Your task to perform on an android device: open app "TextNow: Call + Text Unlimited" (install if not already installed) Image 0: 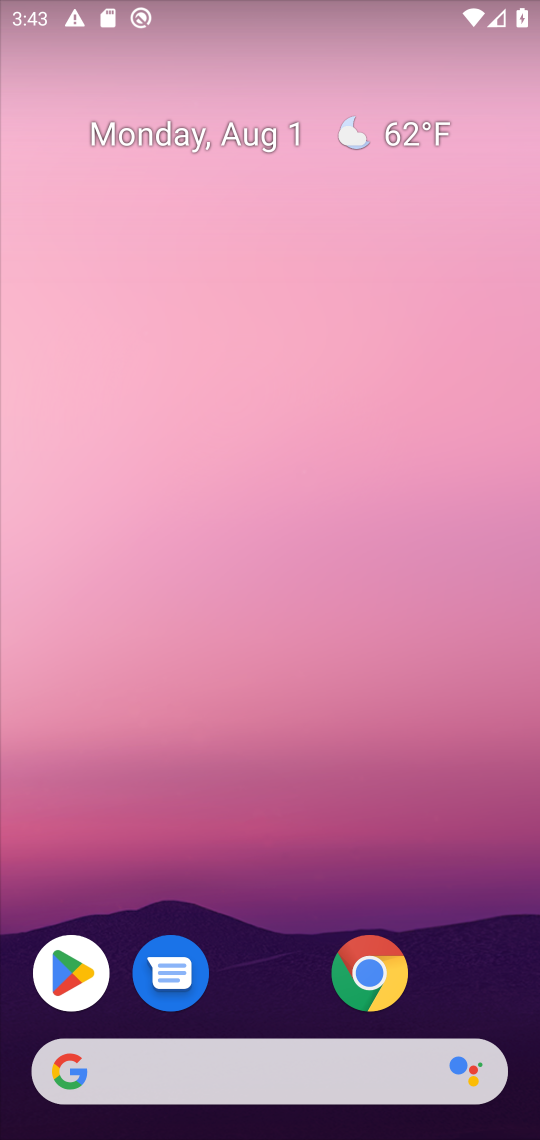
Step 0: drag from (359, 982) to (483, 477)
Your task to perform on an android device: open app "TextNow: Call + Text Unlimited" (install if not already installed) Image 1: 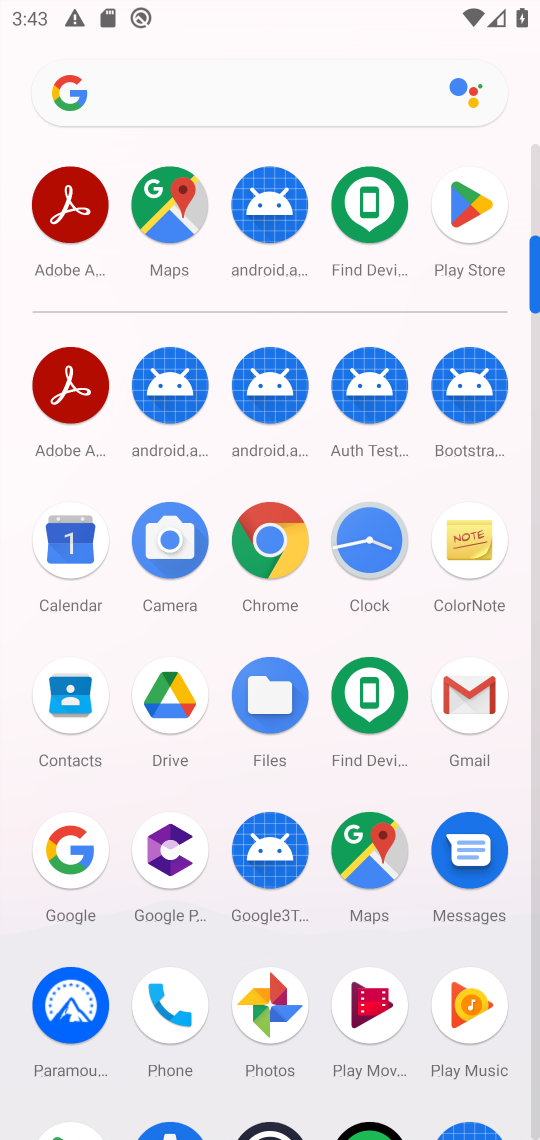
Step 1: click (463, 197)
Your task to perform on an android device: open app "TextNow: Call + Text Unlimited" (install if not already installed) Image 2: 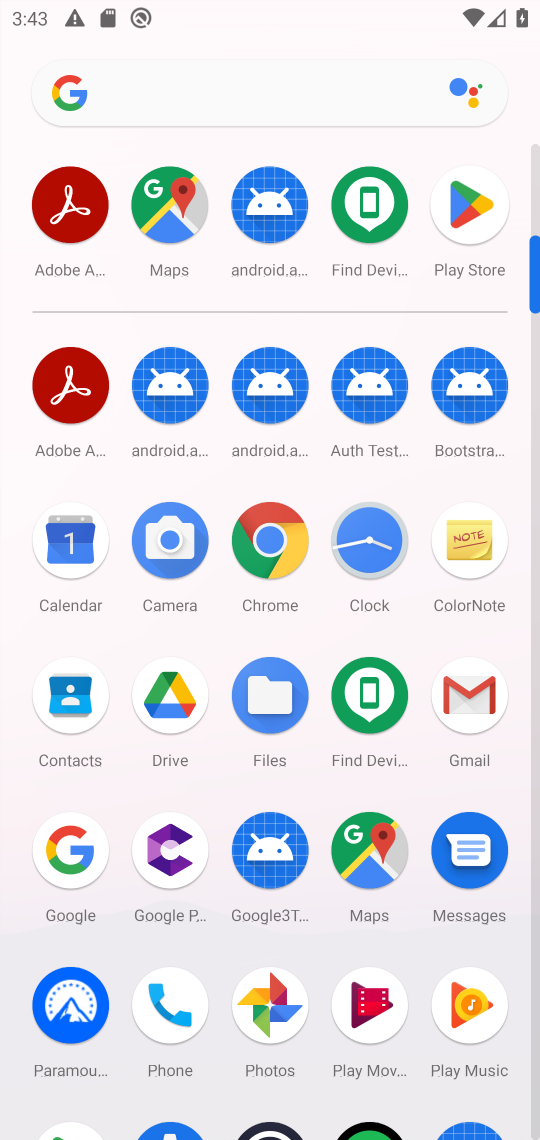
Step 2: click (463, 197)
Your task to perform on an android device: open app "TextNow: Call + Text Unlimited" (install if not already installed) Image 3: 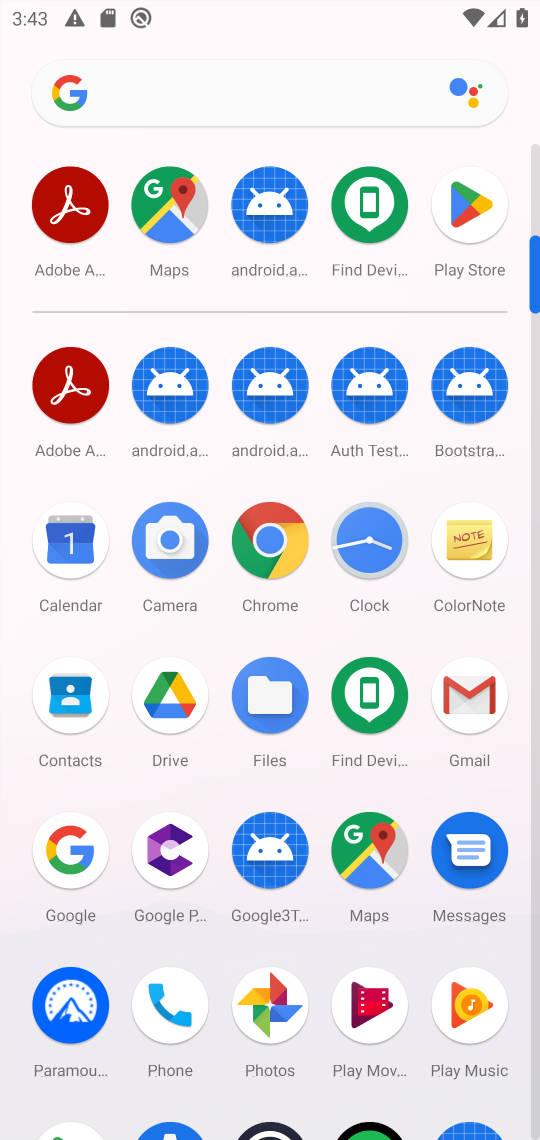
Step 3: click (464, 198)
Your task to perform on an android device: open app "TextNow: Call + Text Unlimited" (install if not already installed) Image 4: 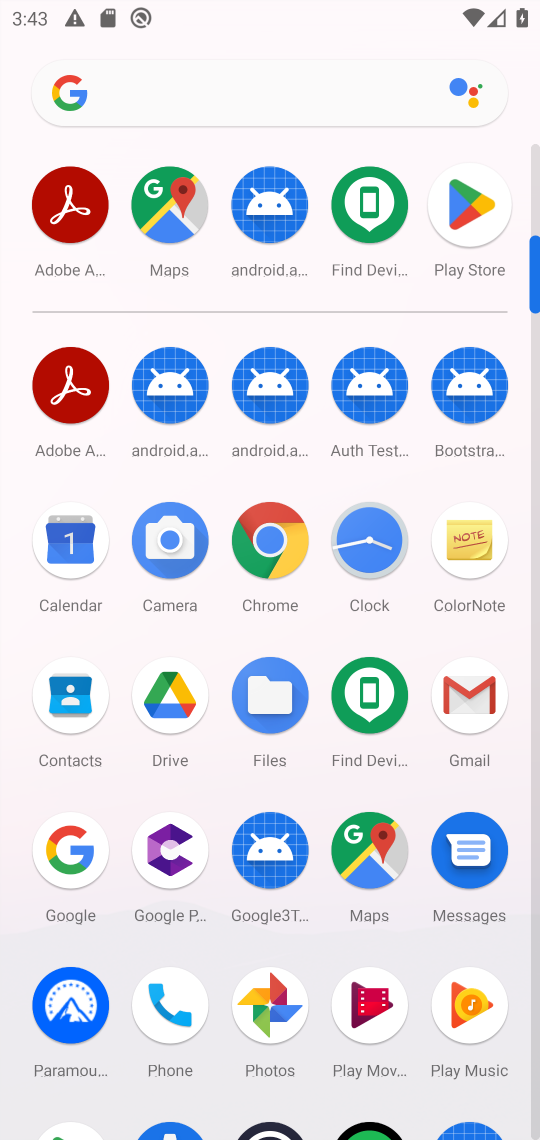
Step 4: click (466, 210)
Your task to perform on an android device: open app "TextNow: Call + Text Unlimited" (install if not already installed) Image 5: 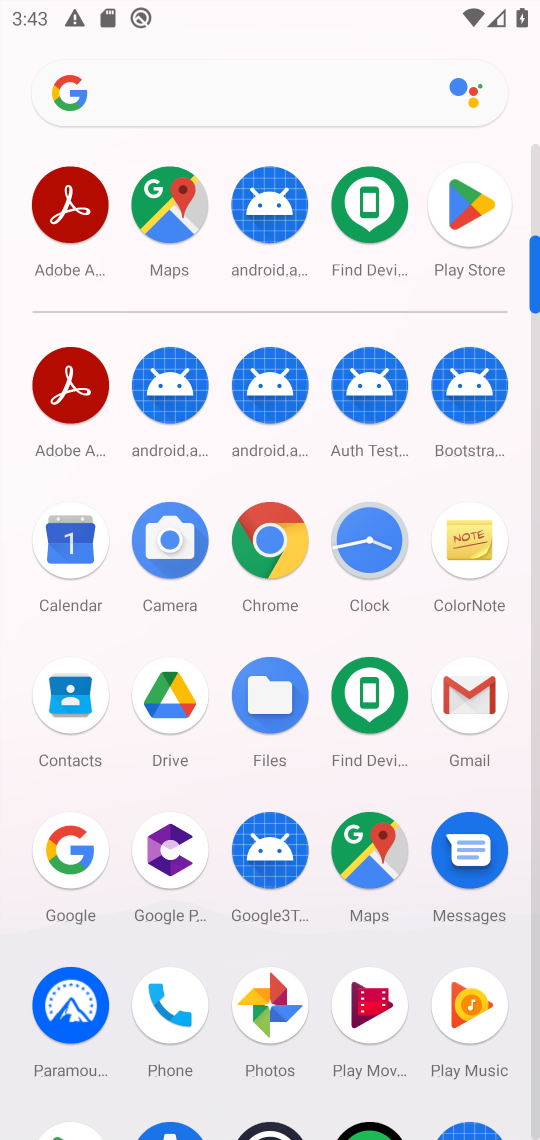
Step 5: click (470, 210)
Your task to perform on an android device: open app "TextNow: Call + Text Unlimited" (install if not already installed) Image 6: 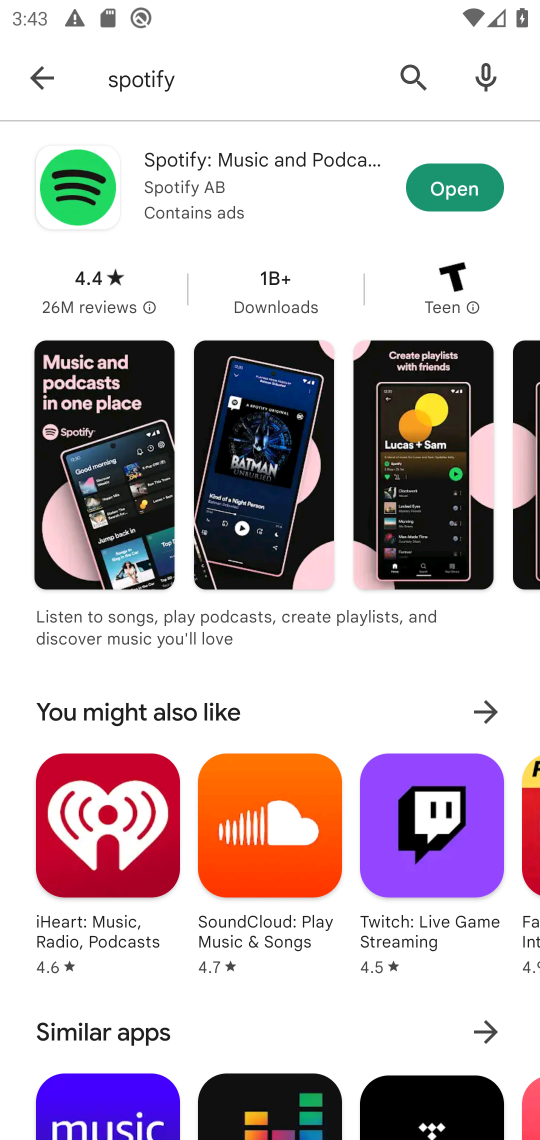
Step 6: click (477, 215)
Your task to perform on an android device: open app "TextNow: Call + Text Unlimited" (install if not already installed) Image 7: 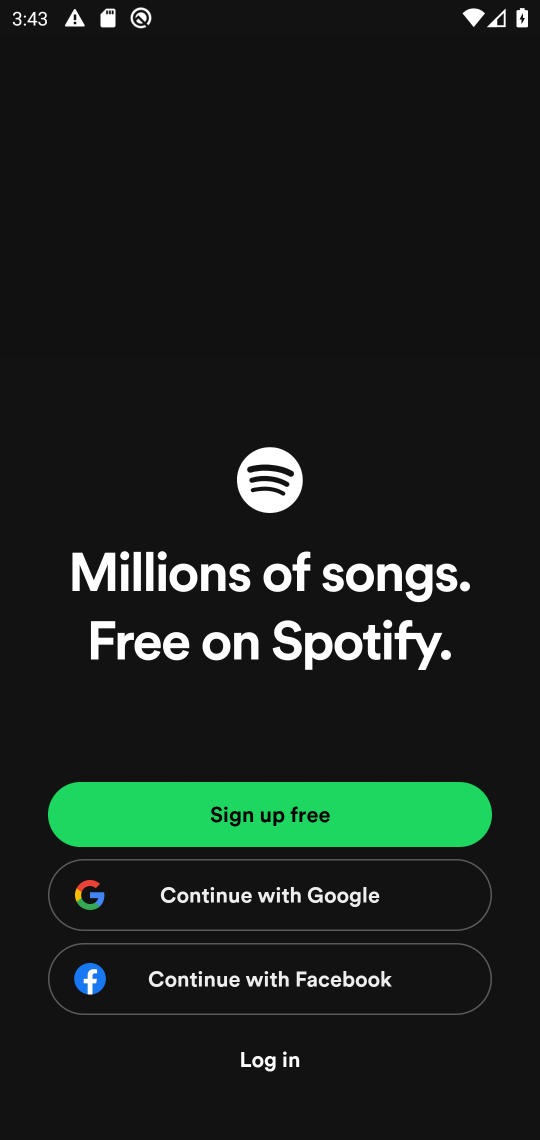
Step 7: press back button
Your task to perform on an android device: open app "TextNow: Call + Text Unlimited" (install if not already installed) Image 8: 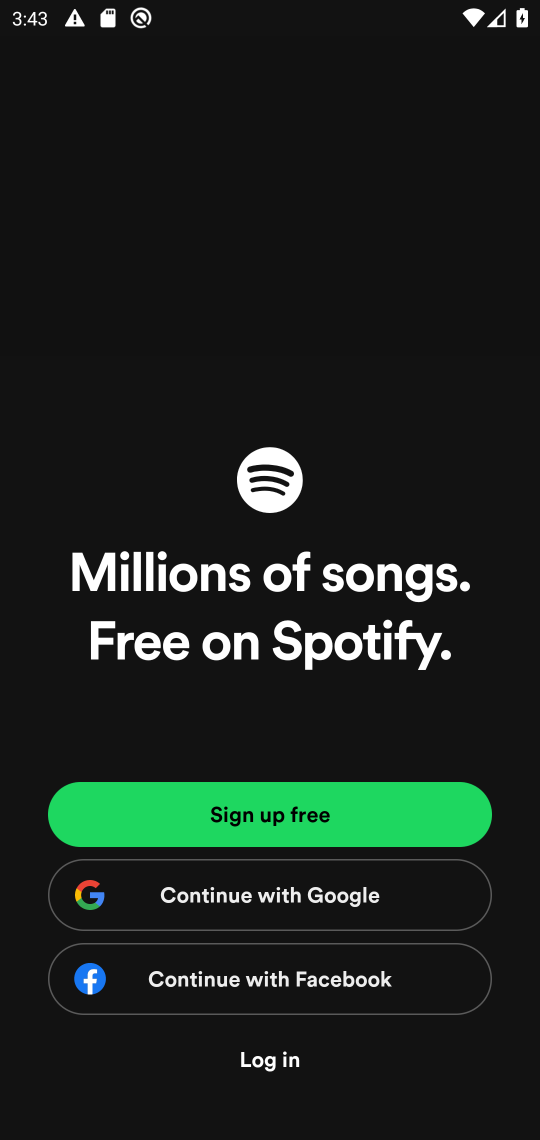
Step 8: press back button
Your task to perform on an android device: open app "TextNow: Call + Text Unlimited" (install if not already installed) Image 9: 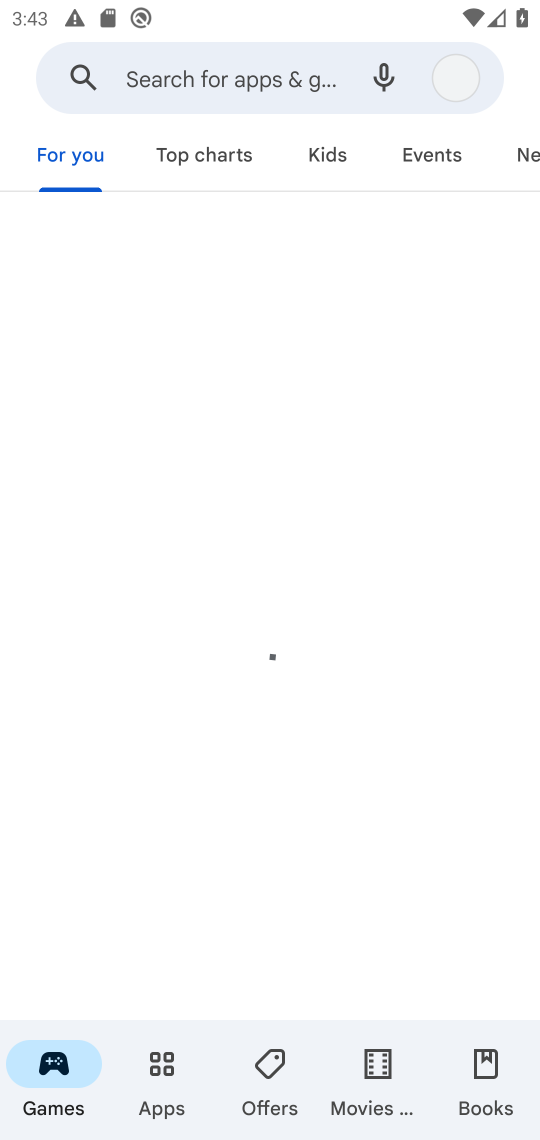
Step 9: press back button
Your task to perform on an android device: open app "TextNow: Call + Text Unlimited" (install if not already installed) Image 10: 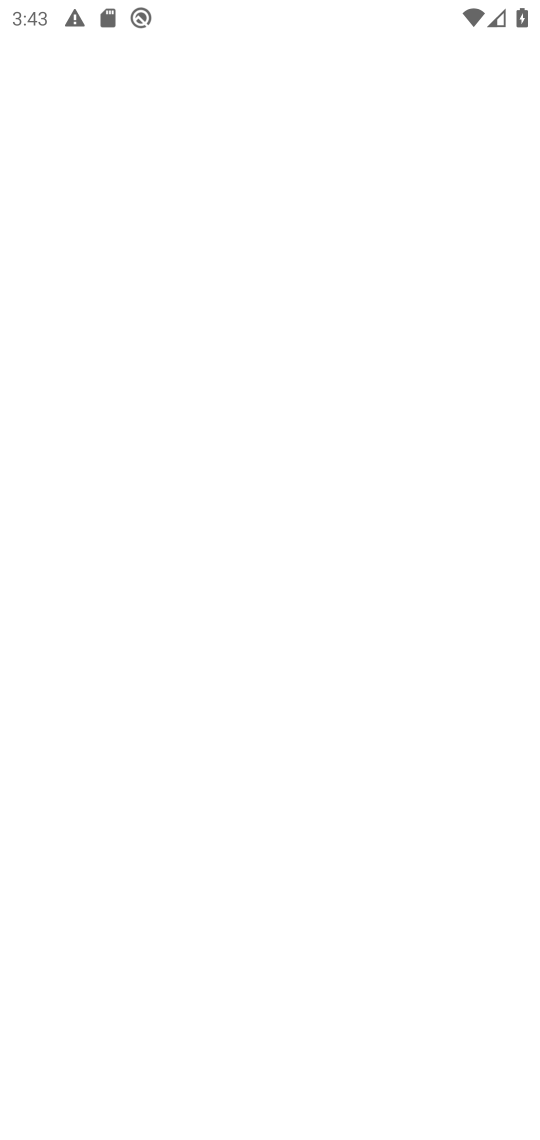
Step 10: click (186, 76)
Your task to perform on an android device: open app "TextNow: Call + Text Unlimited" (install if not already installed) Image 11: 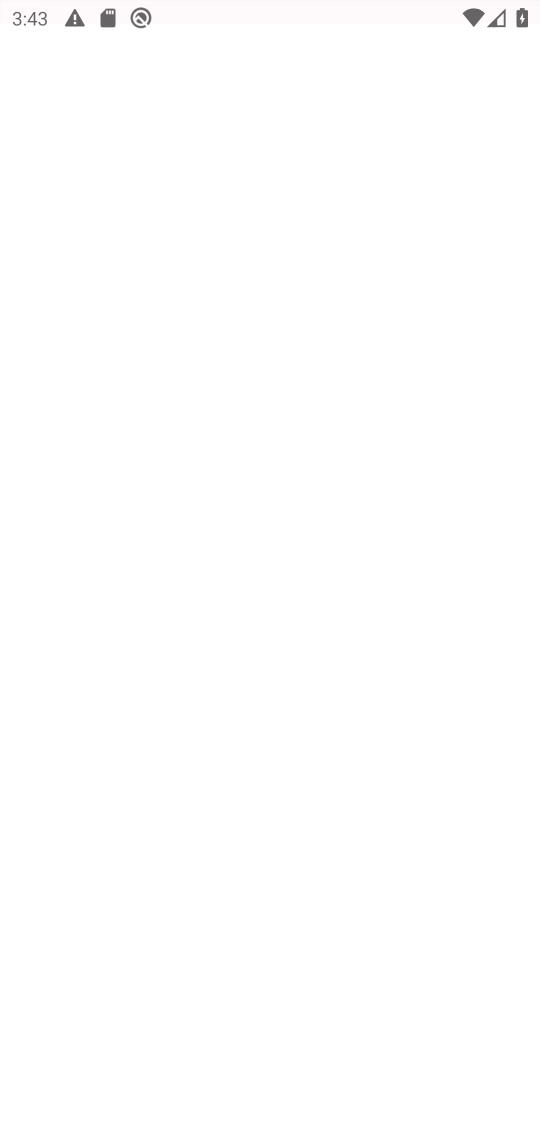
Step 11: click (180, 78)
Your task to perform on an android device: open app "TextNow: Call + Text Unlimited" (install if not already installed) Image 12: 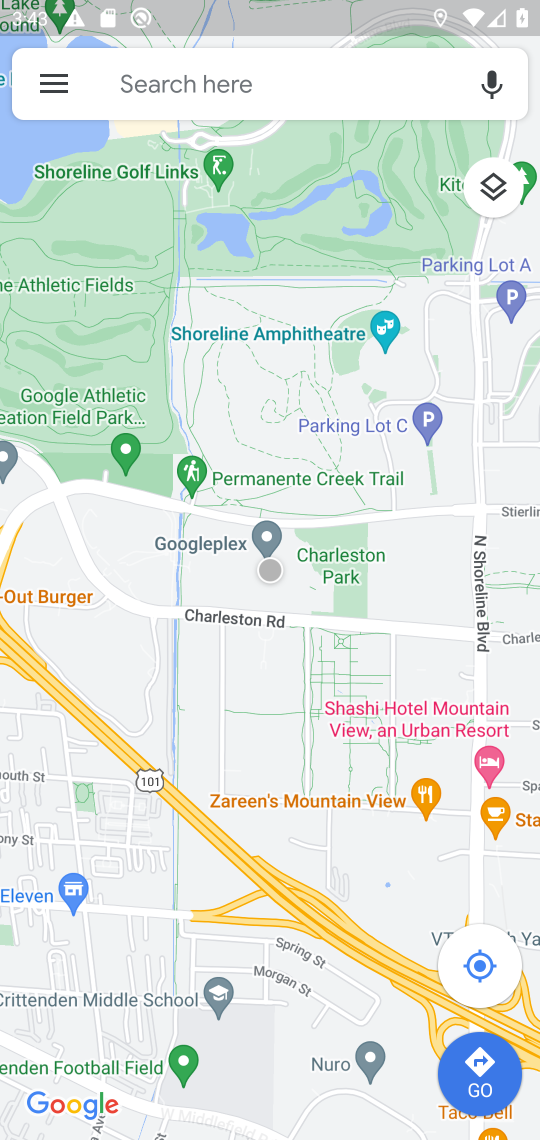
Step 12: press home button
Your task to perform on an android device: open app "TextNow: Call + Text Unlimited" (install if not already installed) Image 13: 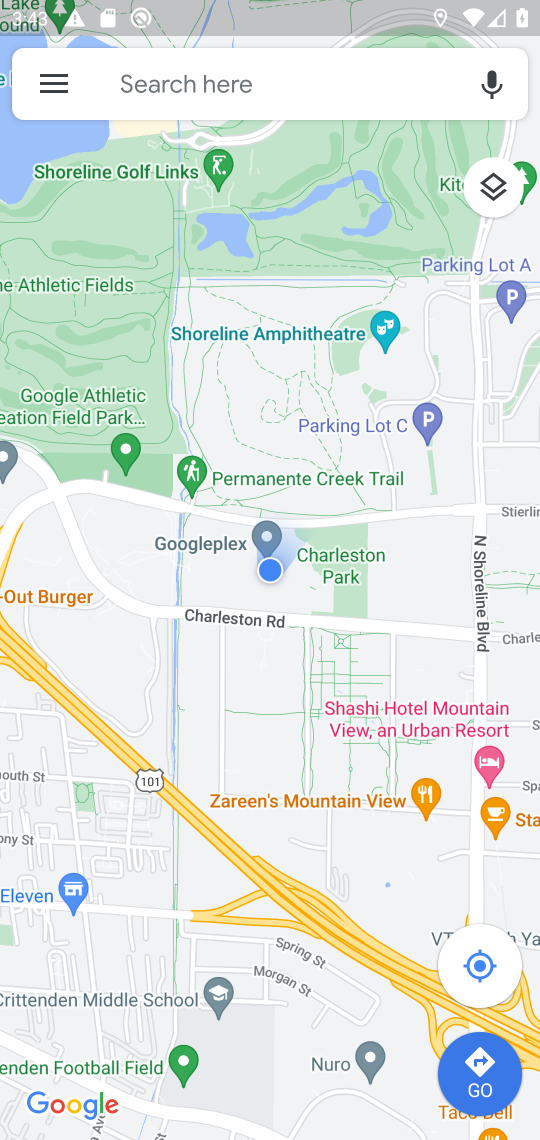
Step 13: press home button
Your task to perform on an android device: open app "TextNow: Call + Text Unlimited" (install if not already installed) Image 14: 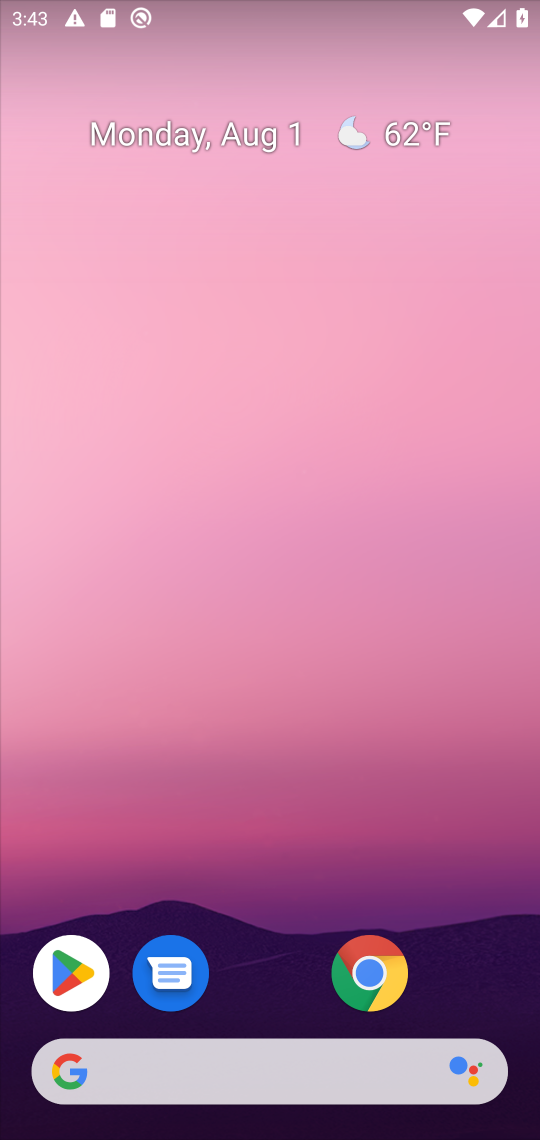
Step 14: press home button
Your task to perform on an android device: open app "TextNow: Call + Text Unlimited" (install if not already installed) Image 15: 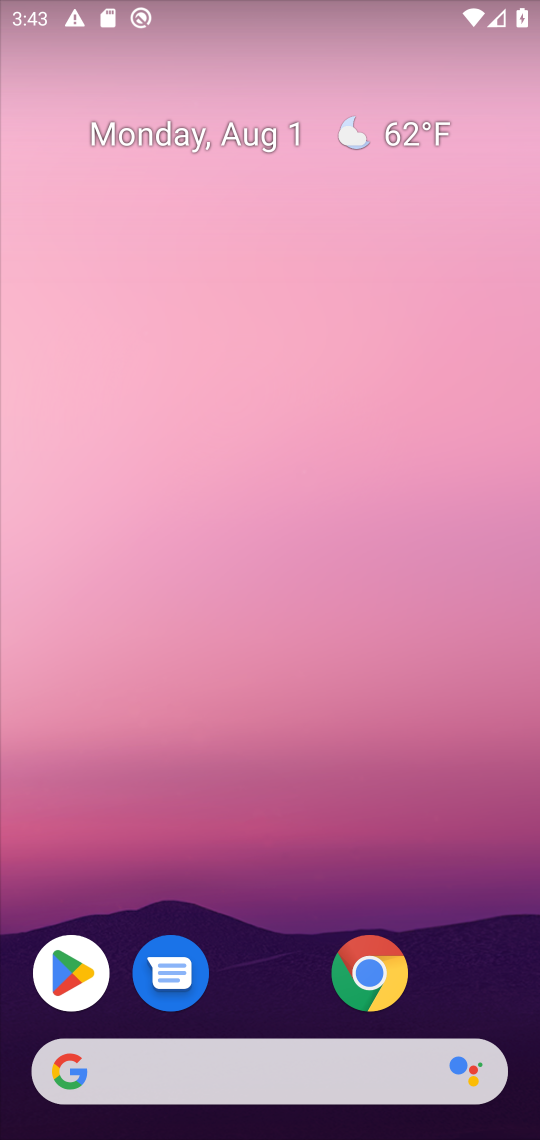
Step 15: drag from (338, 902) to (322, 245)
Your task to perform on an android device: open app "TextNow: Call + Text Unlimited" (install if not already installed) Image 16: 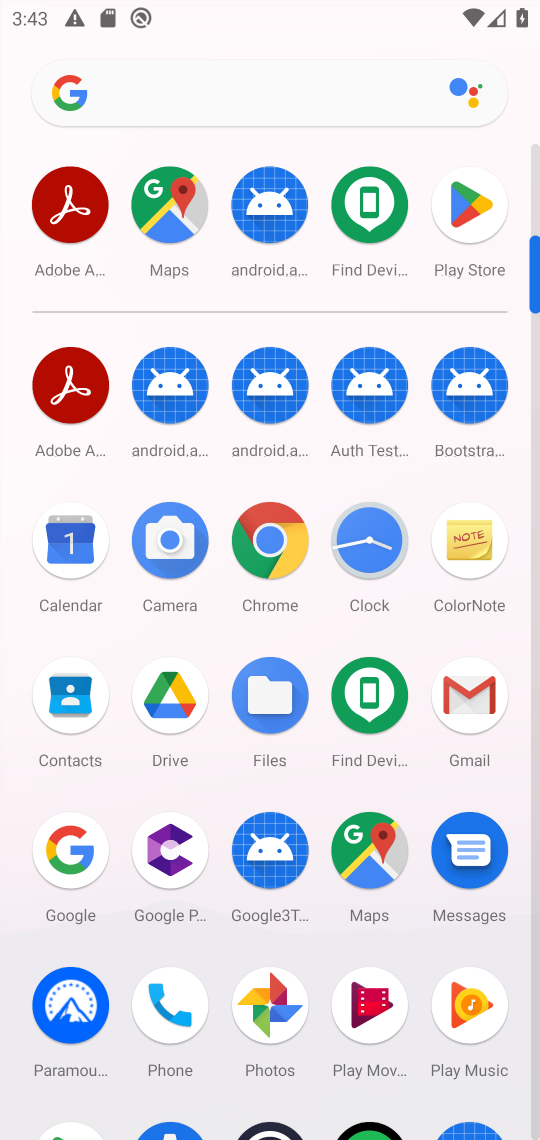
Step 16: click (458, 200)
Your task to perform on an android device: open app "TextNow: Call + Text Unlimited" (install if not already installed) Image 17: 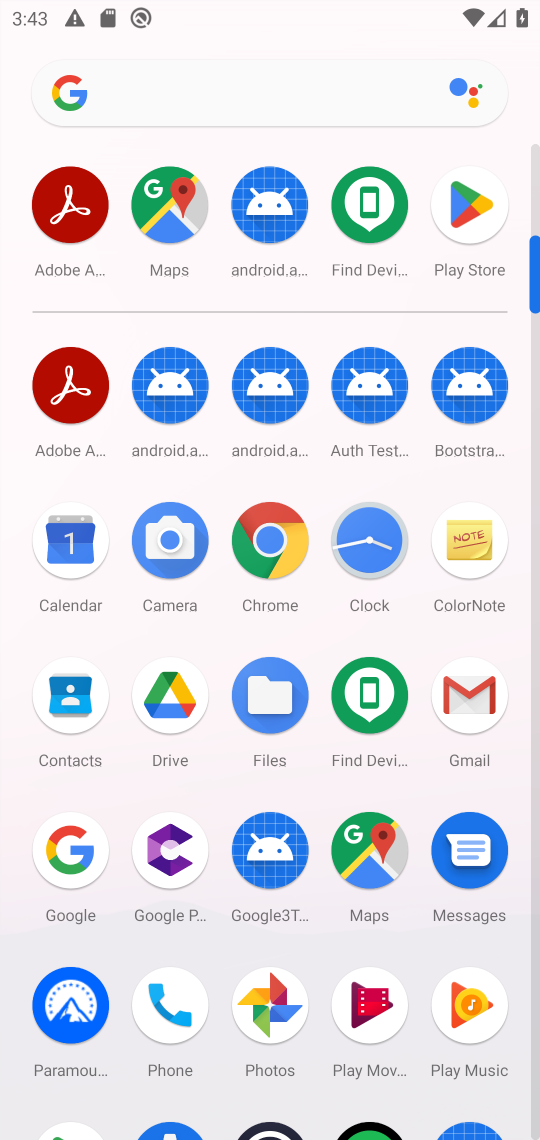
Step 17: click (459, 200)
Your task to perform on an android device: open app "TextNow: Call + Text Unlimited" (install if not already installed) Image 18: 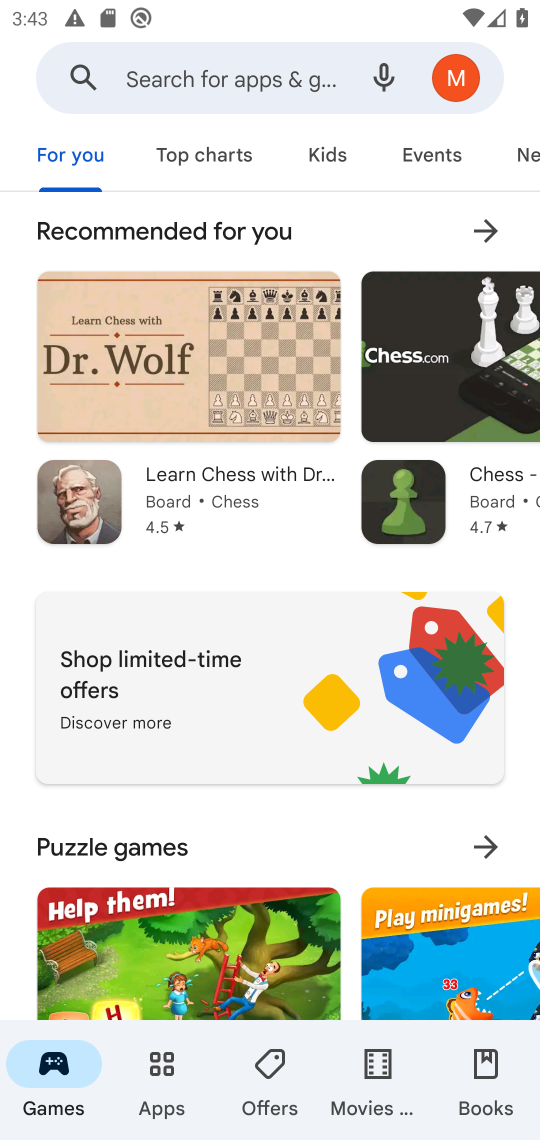
Step 18: click (186, 39)
Your task to perform on an android device: open app "TextNow: Call + Text Unlimited" (install if not already installed) Image 19: 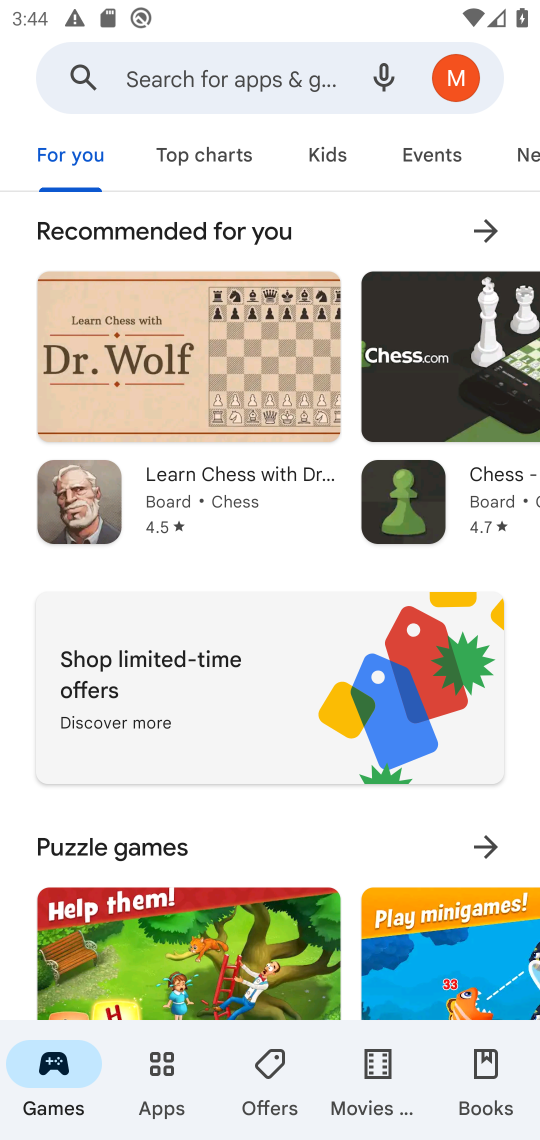
Step 19: type "texnow"
Your task to perform on an android device: open app "TextNow: Call + Text Unlimited" (install if not already installed) Image 20: 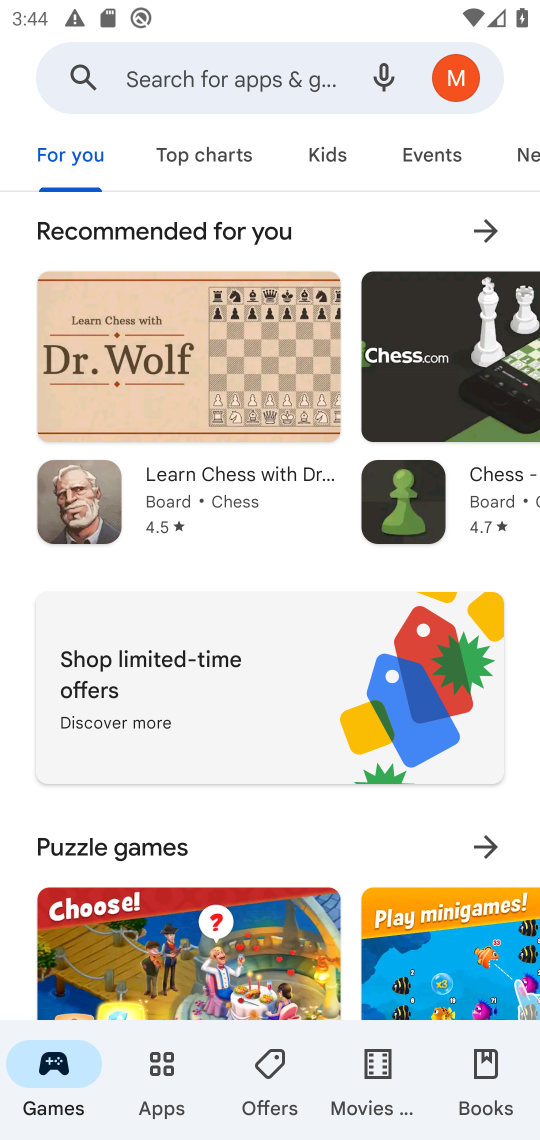
Step 20: click (174, 63)
Your task to perform on an android device: open app "TextNow: Call + Text Unlimited" (install if not already installed) Image 21: 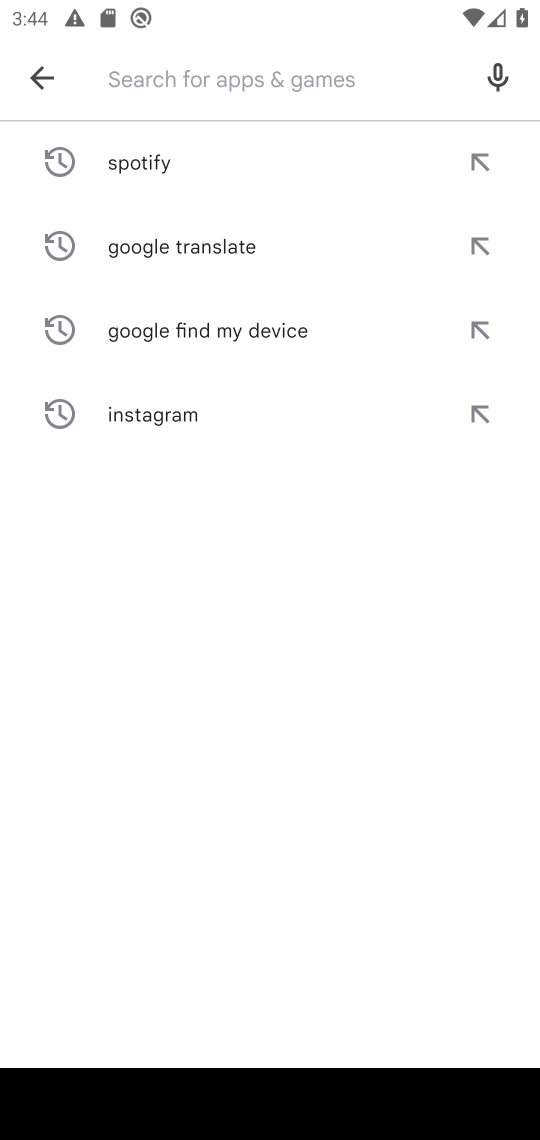
Step 21: type "texnow"
Your task to perform on an android device: open app "TextNow: Call + Text Unlimited" (install if not already installed) Image 22: 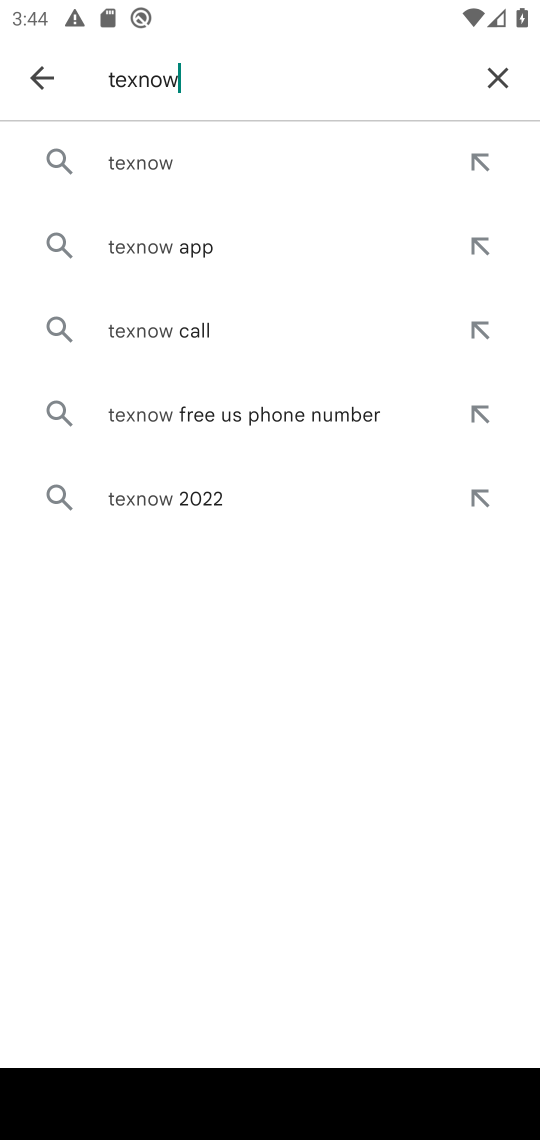
Step 22: click (143, 155)
Your task to perform on an android device: open app "TextNow: Call + Text Unlimited" (install if not already installed) Image 23: 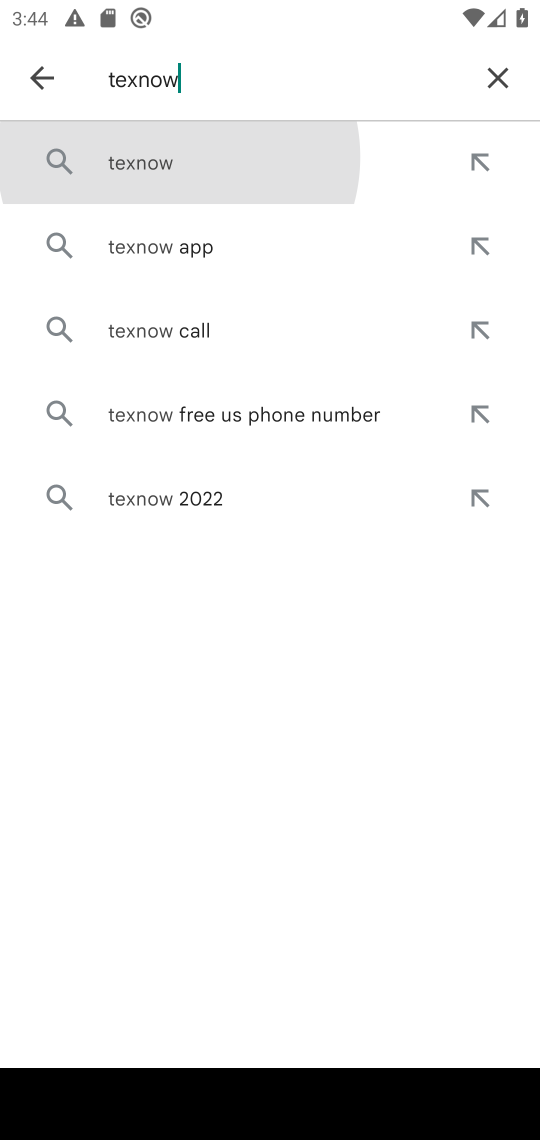
Step 23: click (143, 155)
Your task to perform on an android device: open app "TextNow: Call + Text Unlimited" (install if not already installed) Image 24: 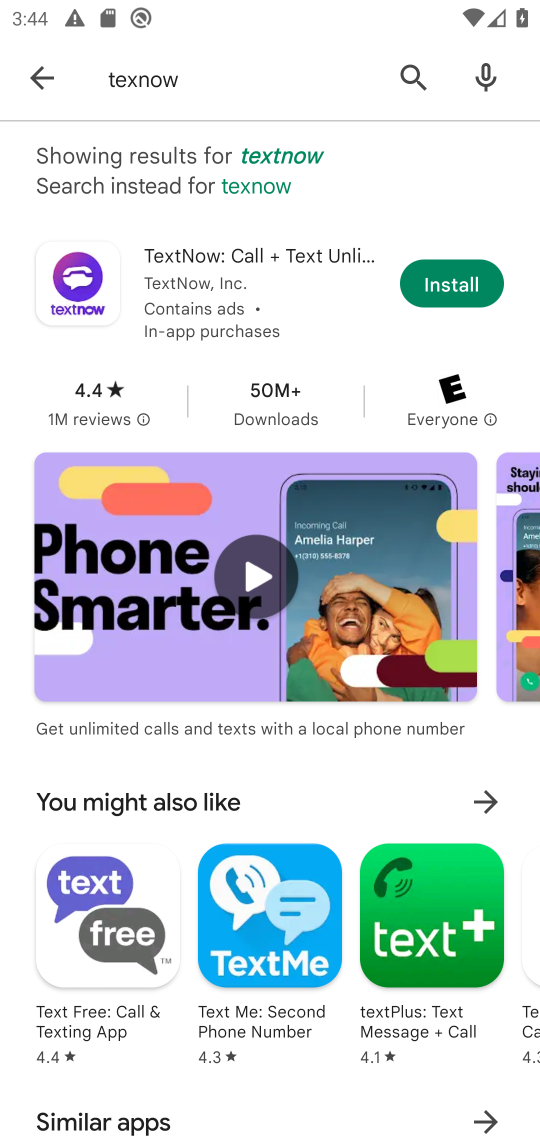
Step 24: click (475, 280)
Your task to perform on an android device: open app "TextNow: Call + Text Unlimited" (install if not already installed) Image 25: 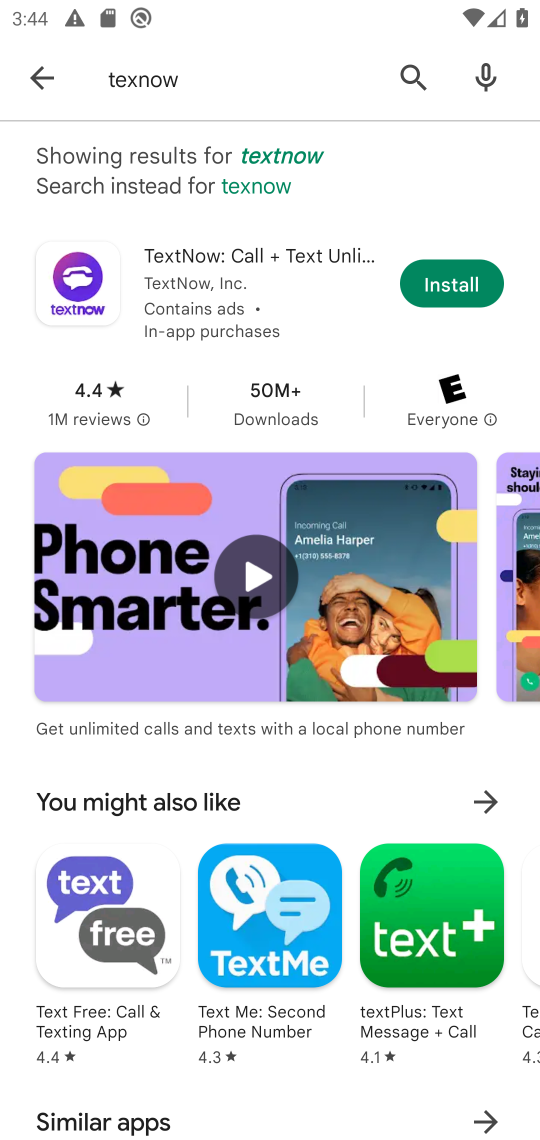
Step 25: click (474, 279)
Your task to perform on an android device: open app "TextNow: Call + Text Unlimited" (install if not already installed) Image 26: 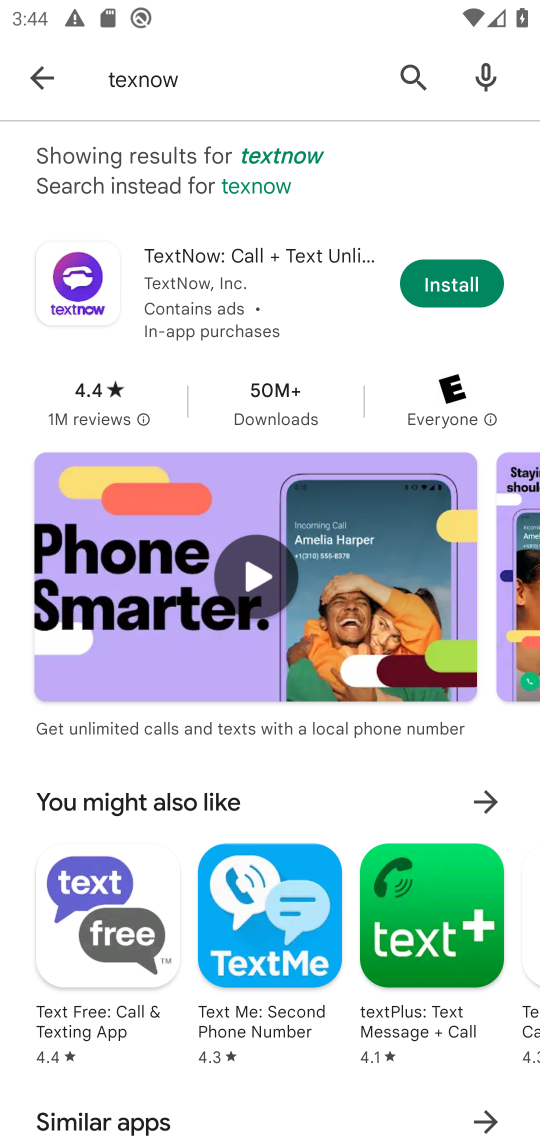
Step 26: click (465, 276)
Your task to perform on an android device: open app "TextNow: Call + Text Unlimited" (install if not already installed) Image 27: 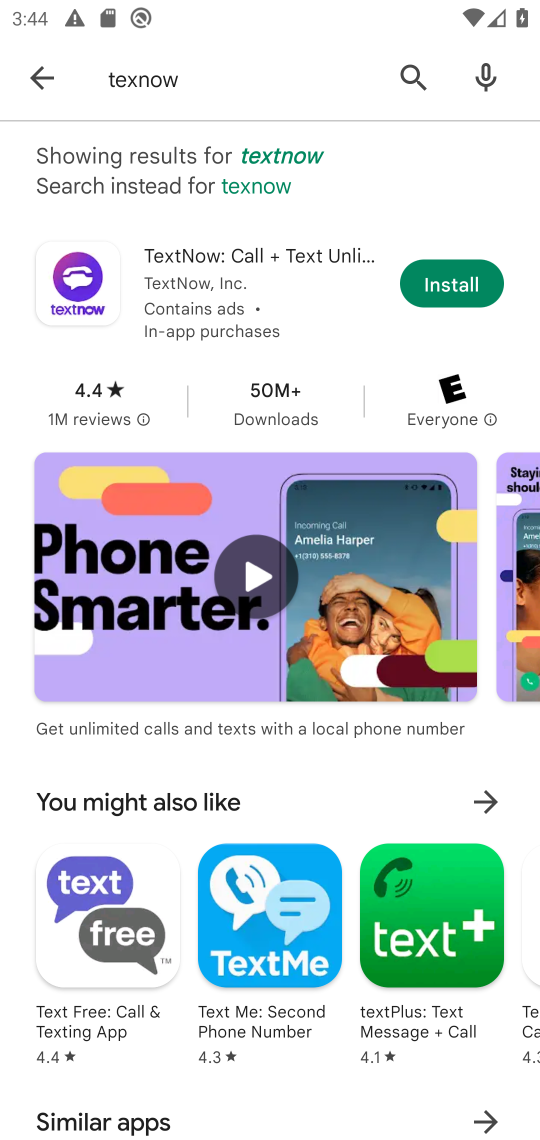
Step 27: click (465, 276)
Your task to perform on an android device: open app "TextNow: Call + Text Unlimited" (install if not already installed) Image 28: 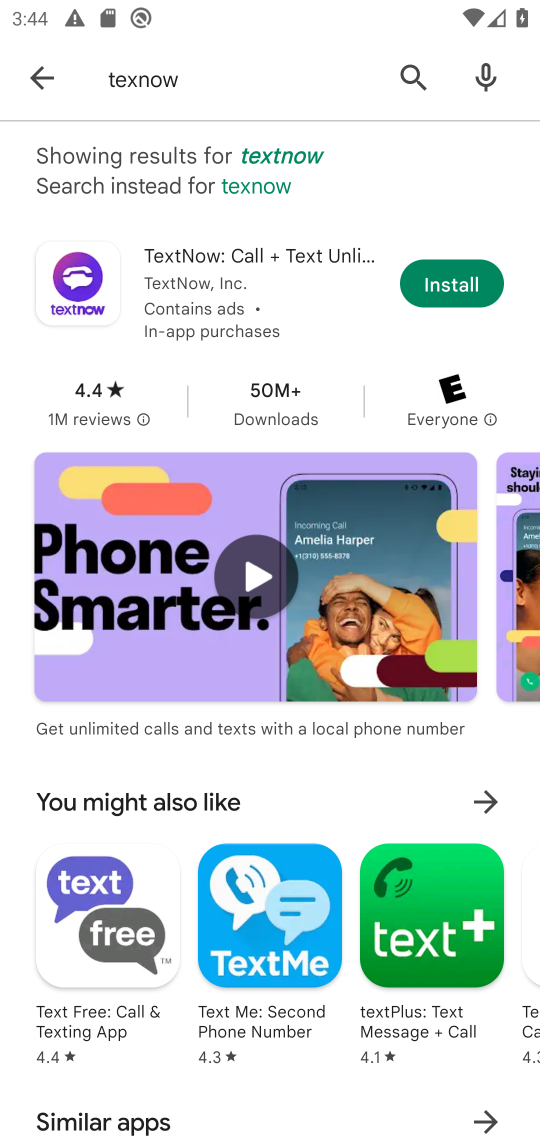
Step 28: click (465, 288)
Your task to perform on an android device: open app "TextNow: Call + Text Unlimited" (install if not already installed) Image 29: 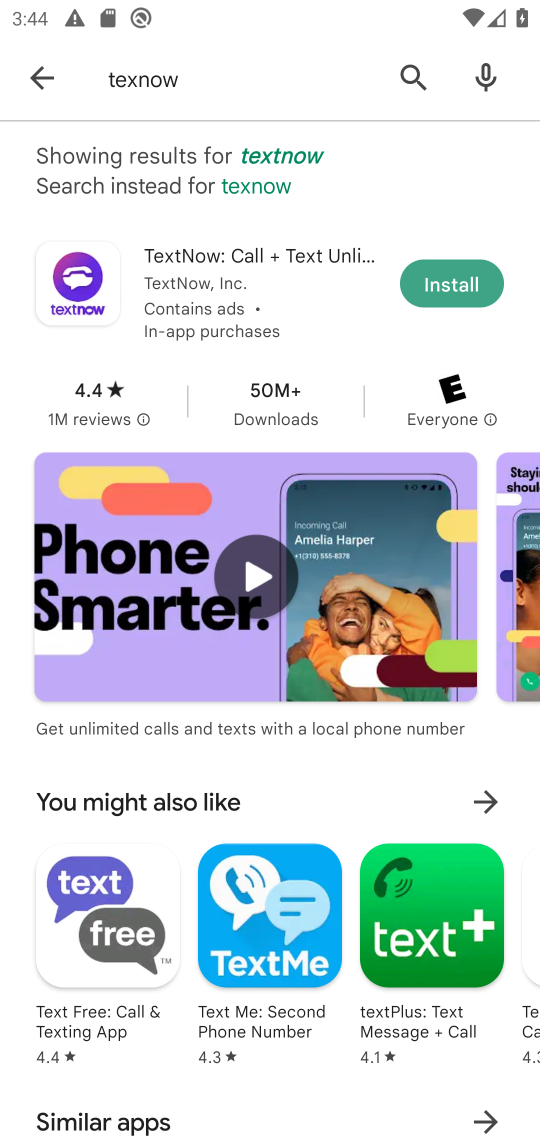
Step 29: click (470, 290)
Your task to perform on an android device: open app "TextNow: Call + Text Unlimited" (install if not already installed) Image 30: 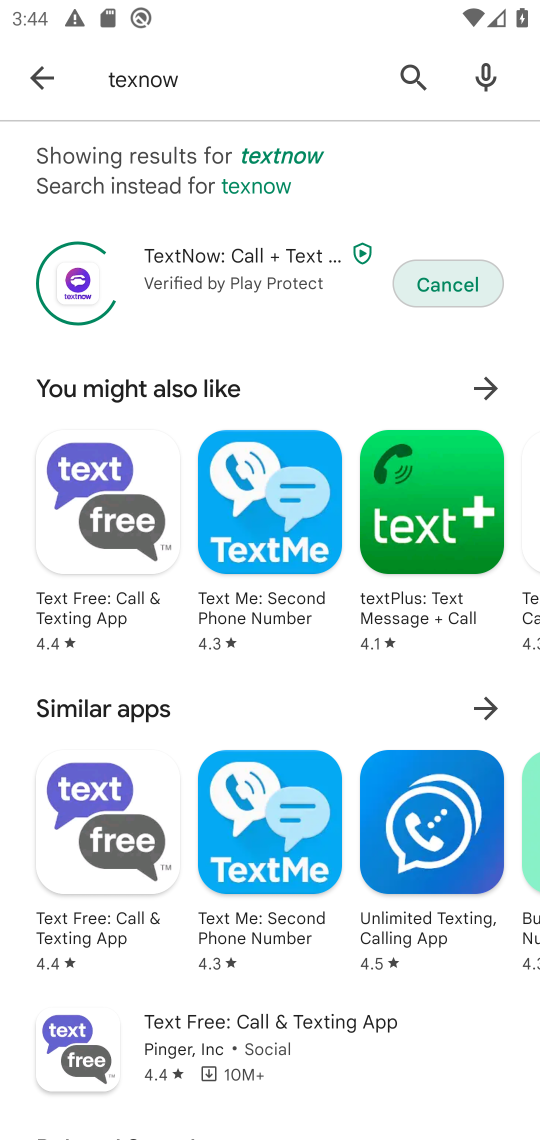
Step 30: click (475, 295)
Your task to perform on an android device: open app "TextNow: Call + Text Unlimited" (install if not already installed) Image 31: 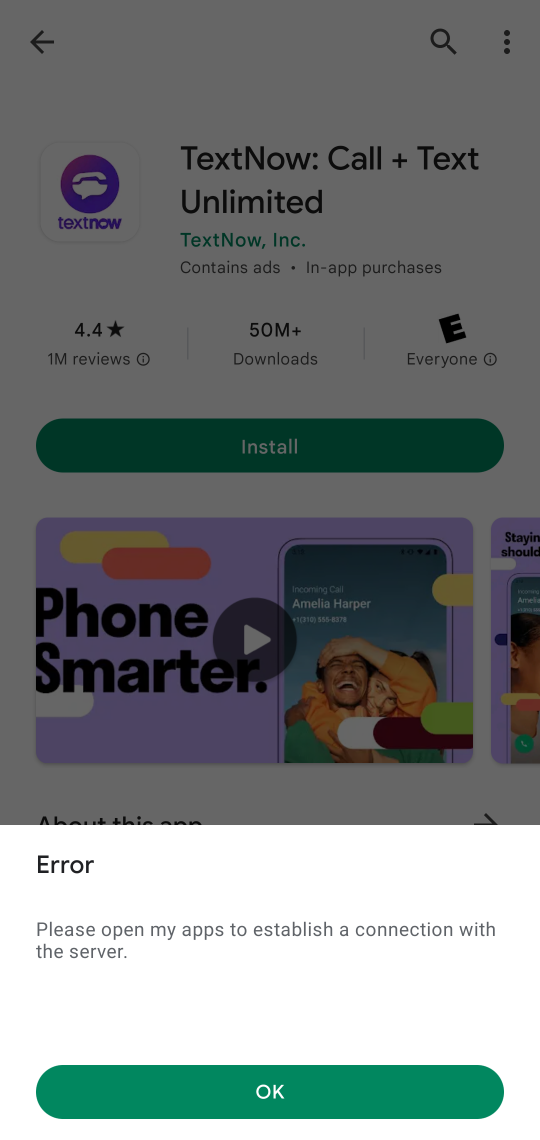
Step 31: click (282, 1085)
Your task to perform on an android device: open app "TextNow: Call + Text Unlimited" (install if not already installed) Image 32: 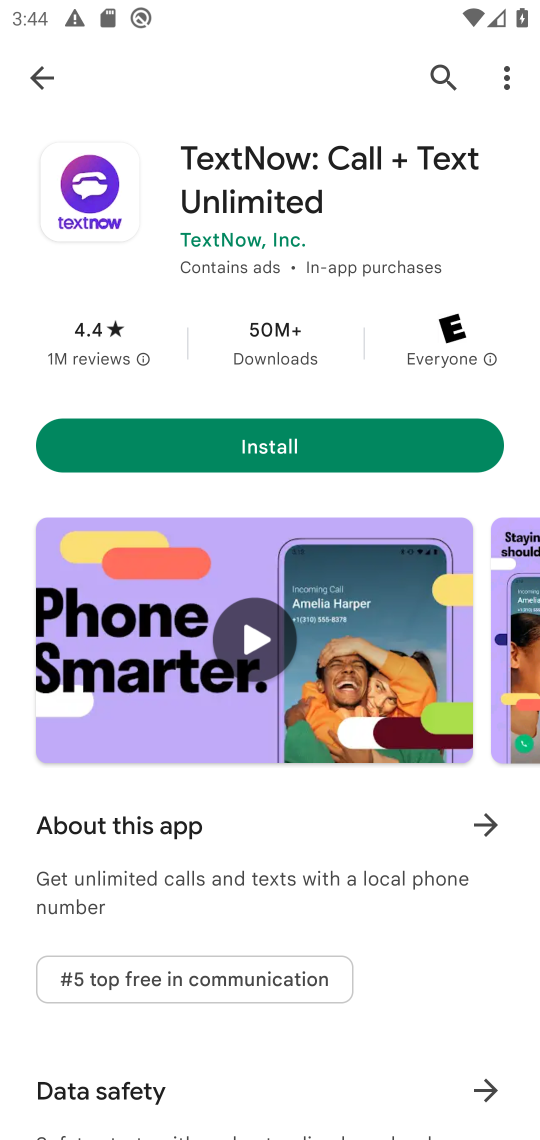
Step 32: click (280, 440)
Your task to perform on an android device: open app "TextNow: Call + Text Unlimited" (install if not already installed) Image 33: 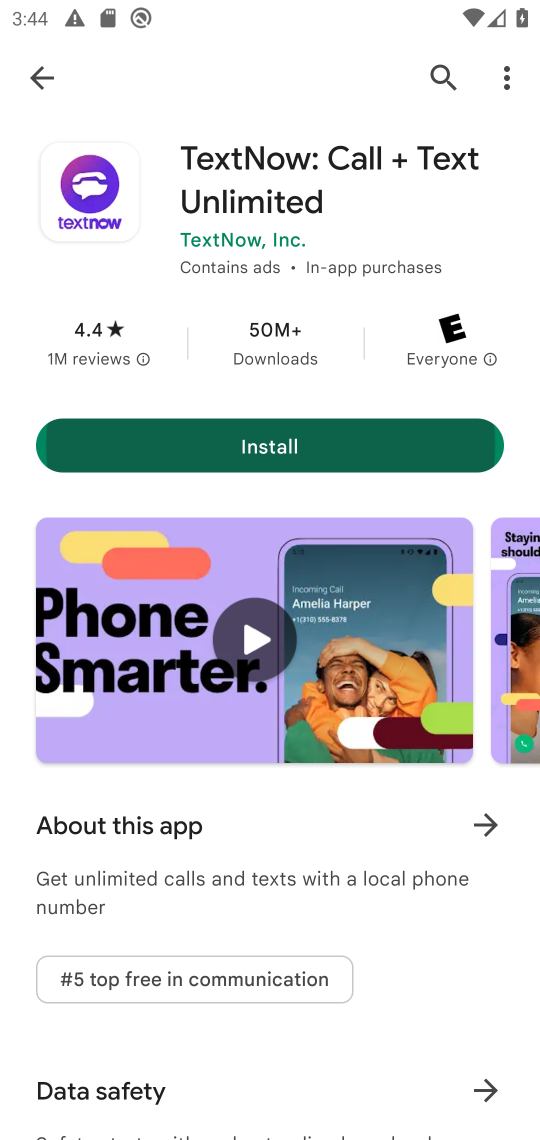
Step 33: click (280, 440)
Your task to perform on an android device: open app "TextNow: Call + Text Unlimited" (install if not already installed) Image 34: 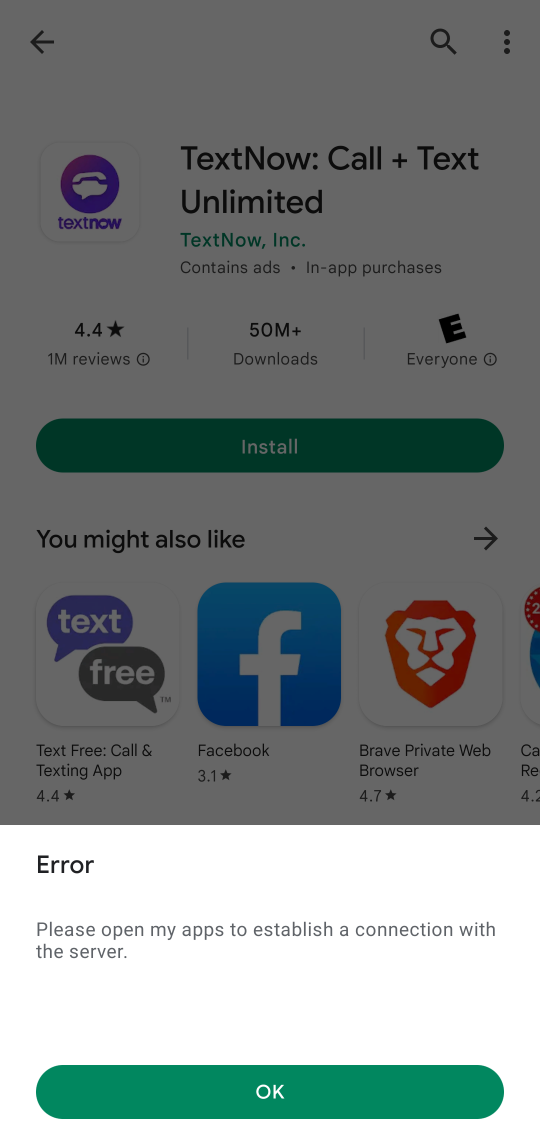
Step 34: click (296, 1101)
Your task to perform on an android device: open app "TextNow: Call + Text Unlimited" (install if not already installed) Image 35: 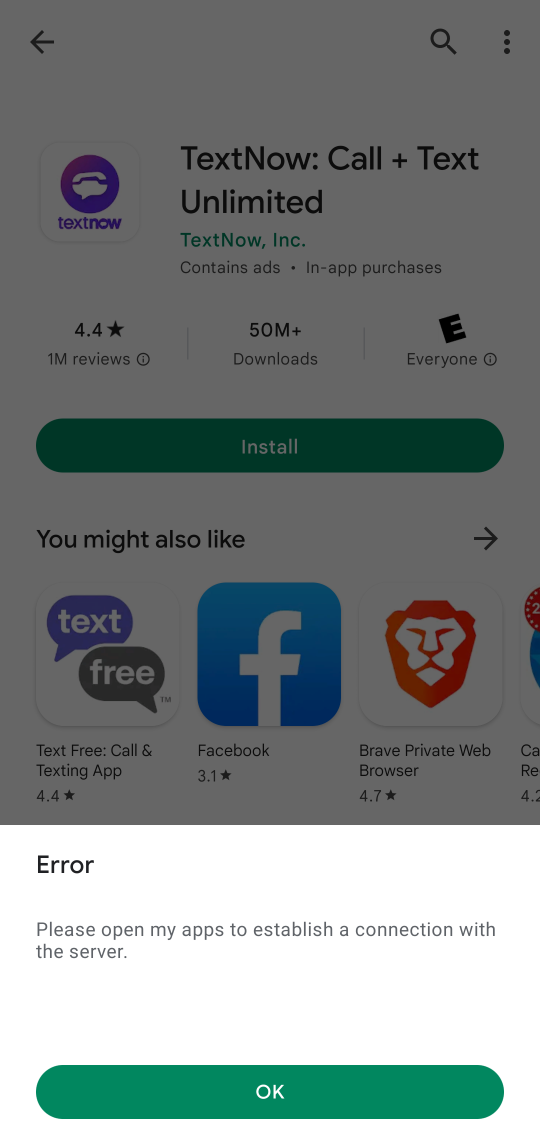
Step 35: click (298, 1099)
Your task to perform on an android device: open app "TextNow: Call + Text Unlimited" (install if not already installed) Image 36: 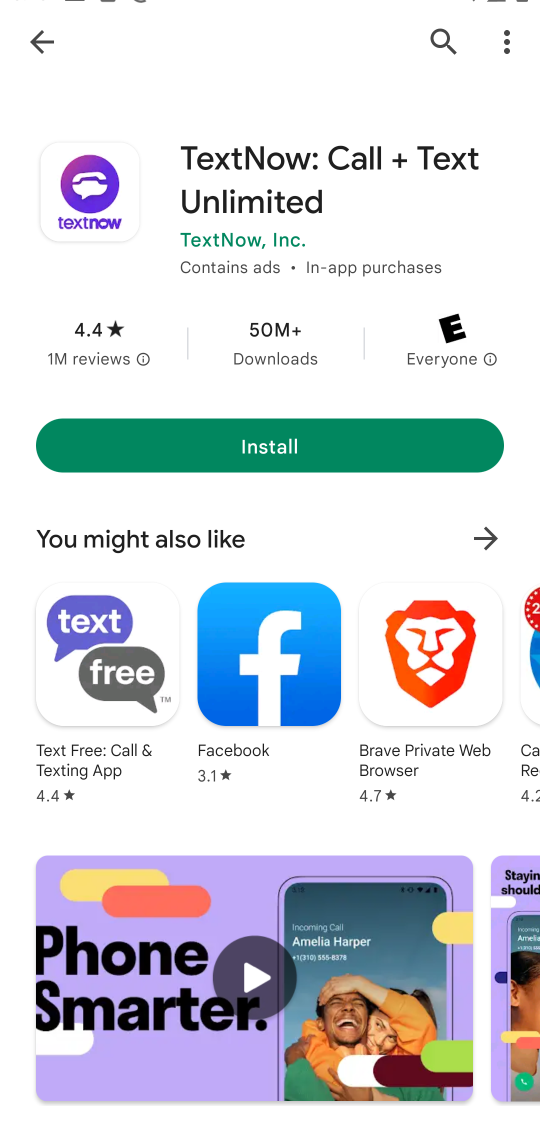
Step 36: click (296, 1097)
Your task to perform on an android device: open app "TextNow: Call + Text Unlimited" (install if not already installed) Image 37: 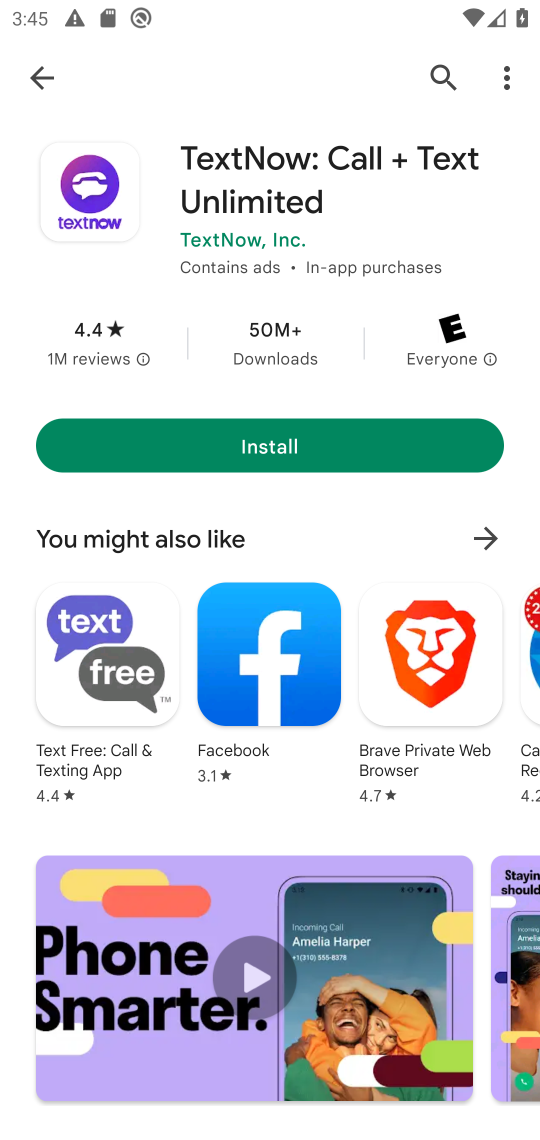
Step 37: click (309, 433)
Your task to perform on an android device: open app "TextNow: Call + Text Unlimited" (install if not already installed) Image 38: 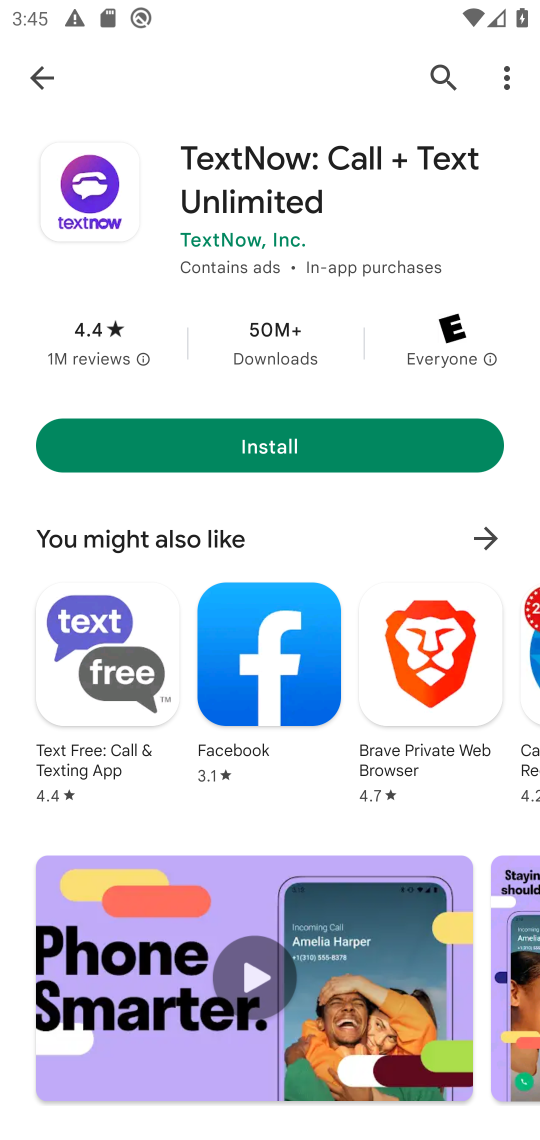
Step 38: click (309, 433)
Your task to perform on an android device: open app "TextNow: Call + Text Unlimited" (install if not already installed) Image 39: 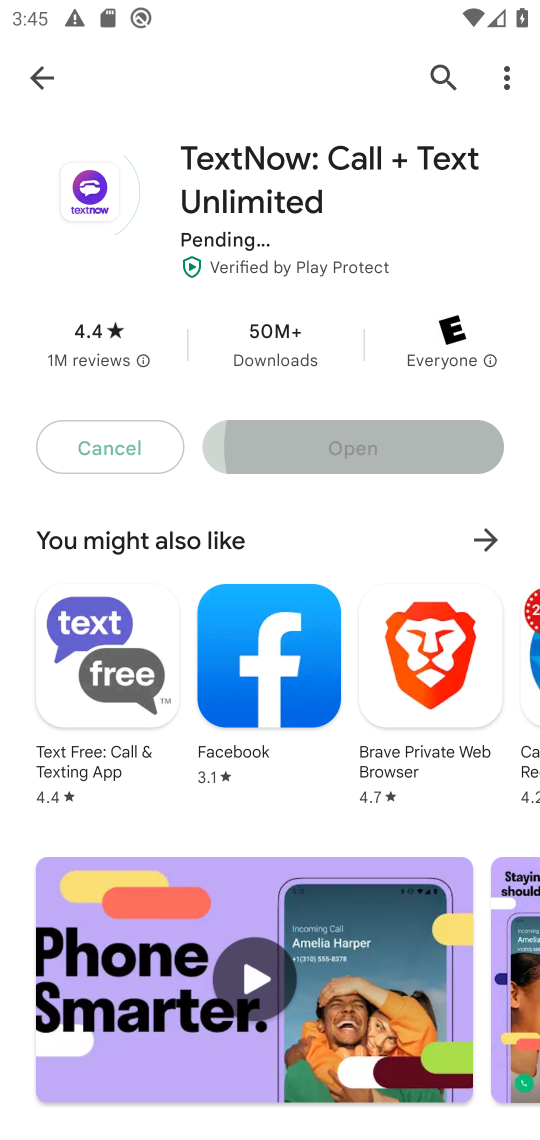
Step 39: click (317, 445)
Your task to perform on an android device: open app "TextNow: Call + Text Unlimited" (install if not already installed) Image 40: 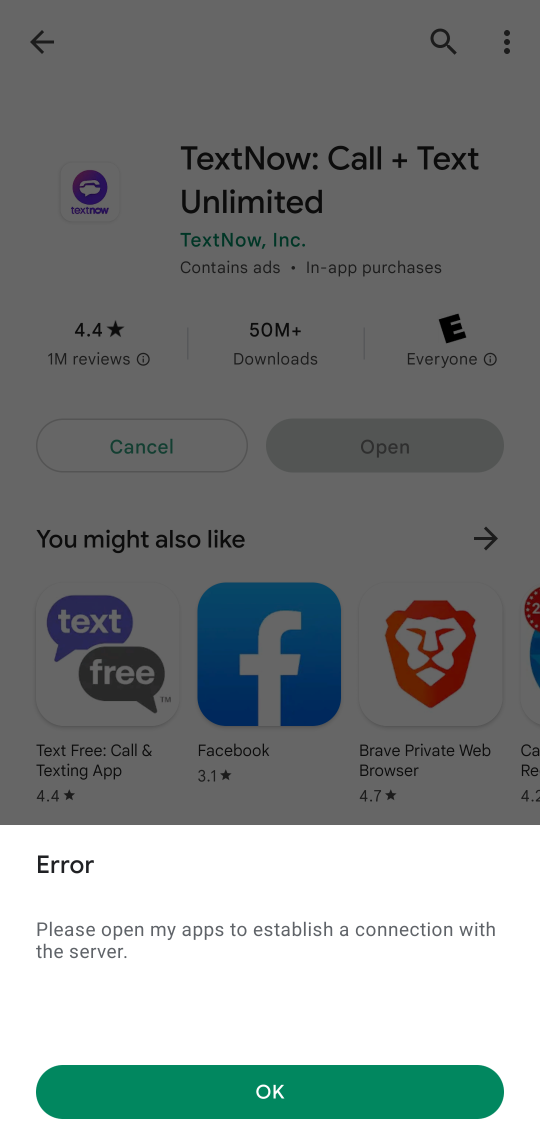
Step 40: click (270, 1078)
Your task to perform on an android device: open app "TextNow: Call + Text Unlimited" (install if not already installed) Image 41: 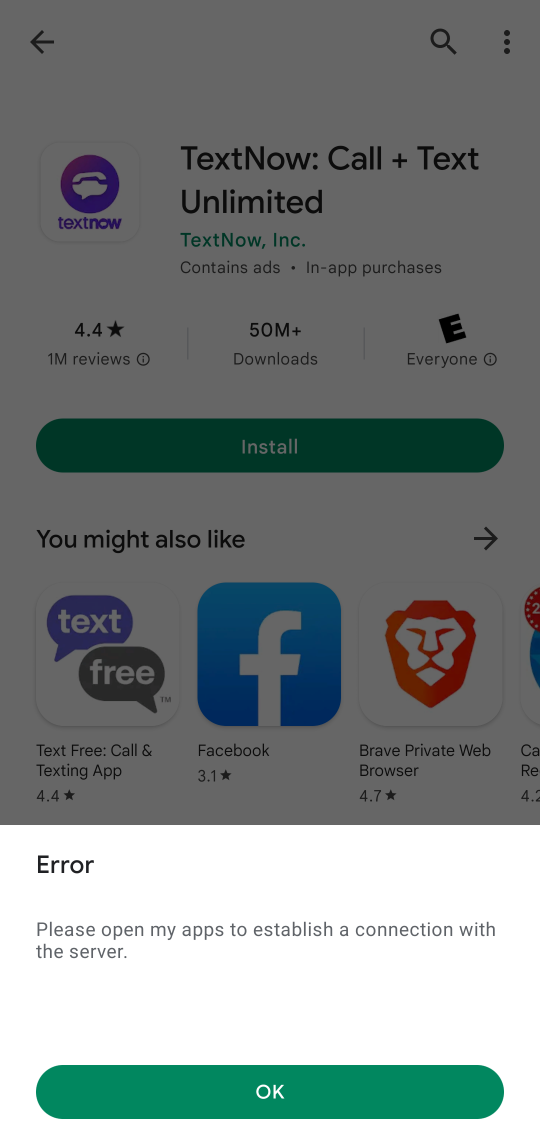
Step 41: click (274, 1081)
Your task to perform on an android device: open app "TextNow: Call + Text Unlimited" (install if not already installed) Image 42: 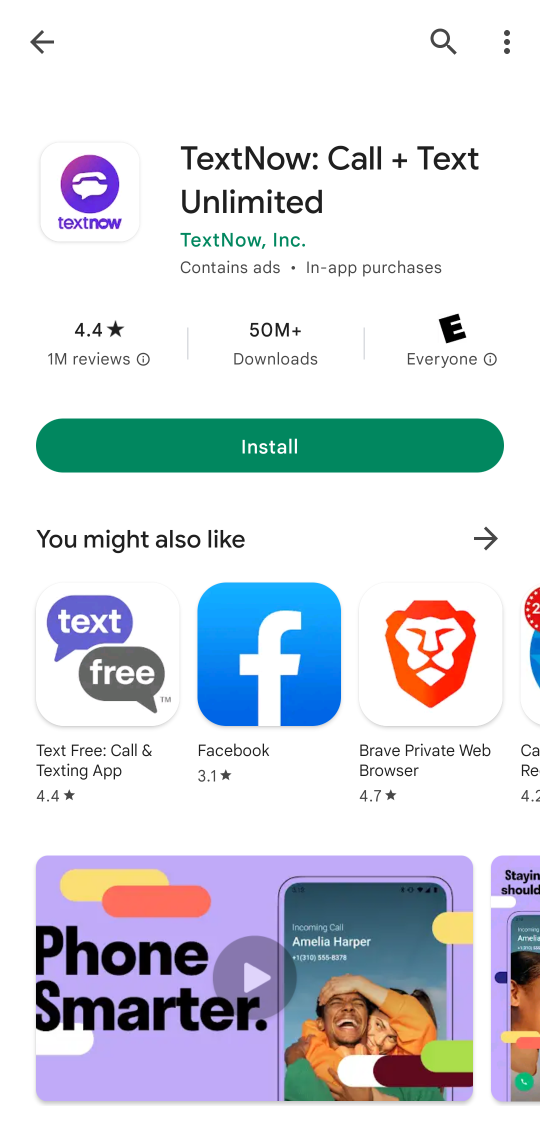
Step 42: click (275, 1082)
Your task to perform on an android device: open app "TextNow: Call + Text Unlimited" (install if not already installed) Image 43: 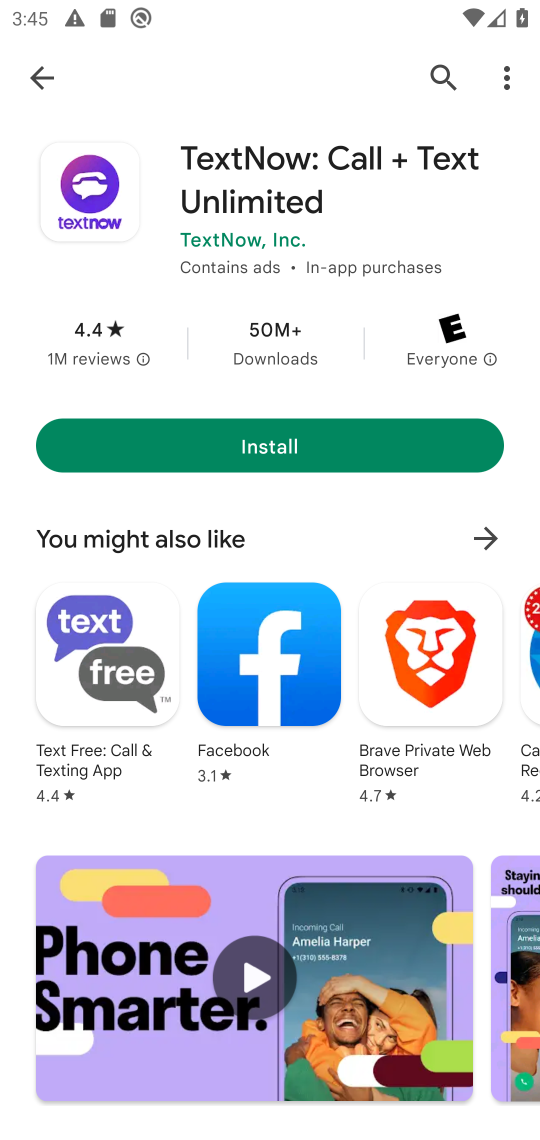
Step 43: click (215, 438)
Your task to perform on an android device: open app "TextNow: Call + Text Unlimited" (install if not already installed) Image 44: 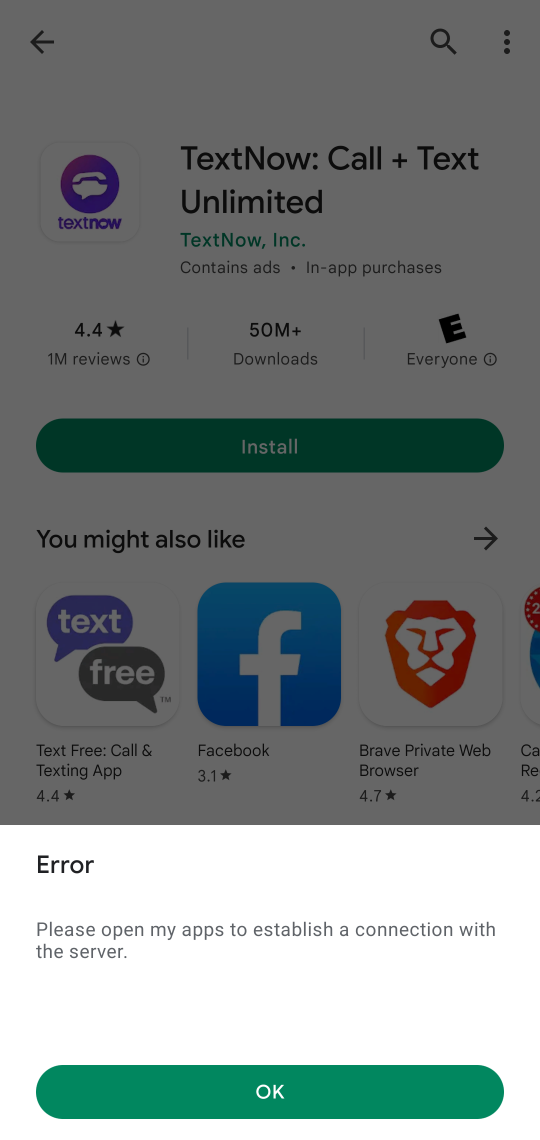
Step 44: click (279, 1089)
Your task to perform on an android device: open app "TextNow: Call + Text Unlimited" (install if not already installed) Image 45: 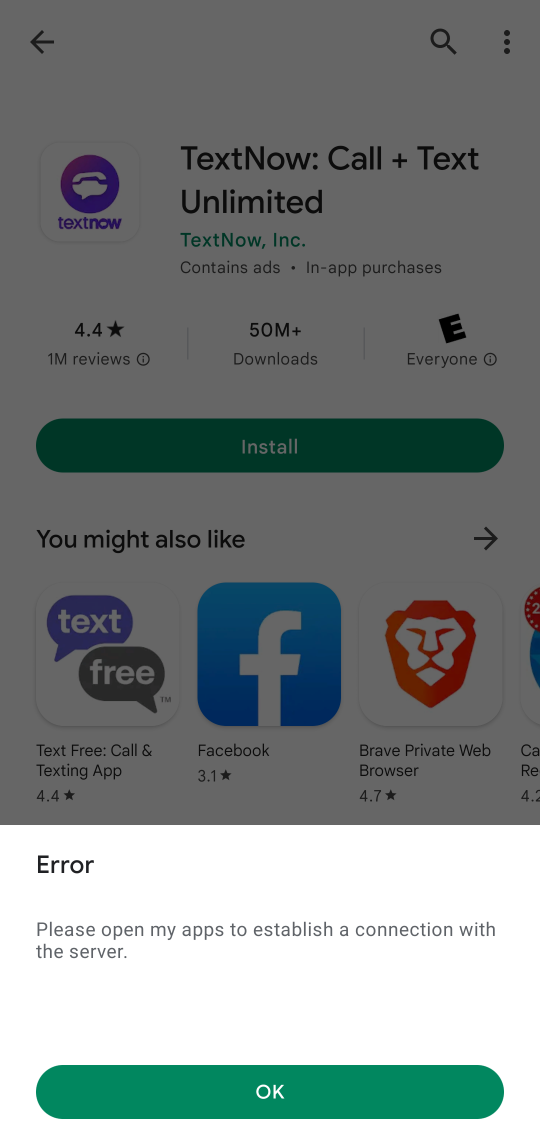
Step 45: click (278, 1091)
Your task to perform on an android device: open app "TextNow: Call + Text Unlimited" (install if not already installed) Image 46: 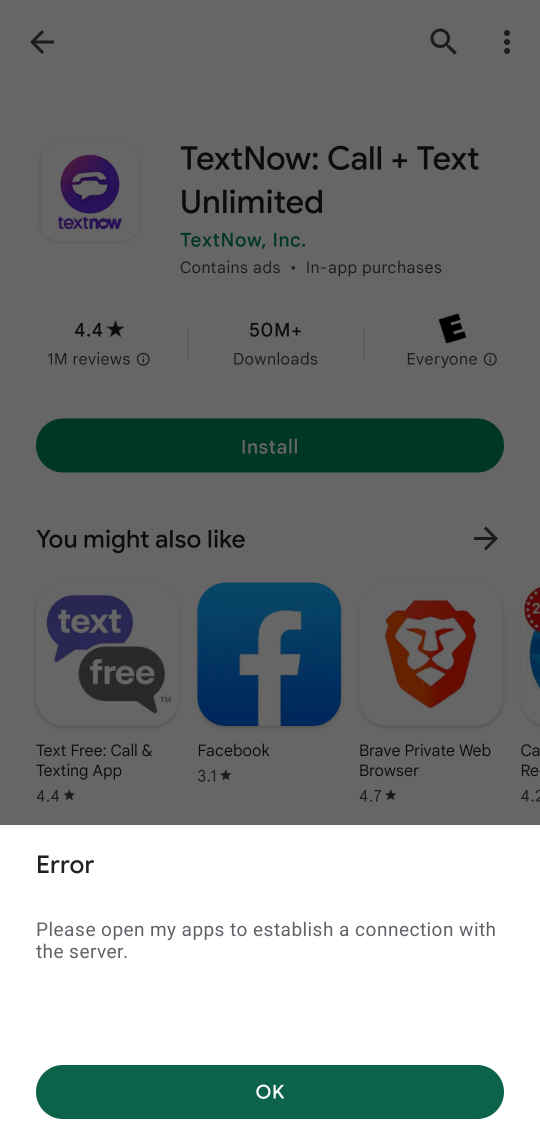
Step 46: click (281, 1103)
Your task to perform on an android device: open app "TextNow: Call + Text Unlimited" (install if not already installed) Image 47: 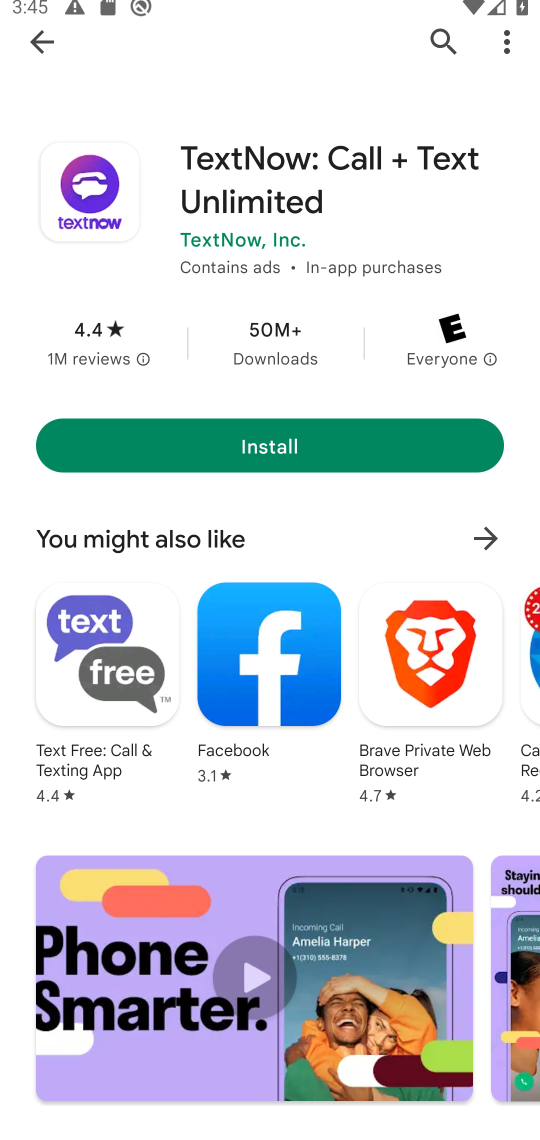
Step 47: click (279, 1137)
Your task to perform on an android device: open app "TextNow: Call + Text Unlimited" (install if not already installed) Image 48: 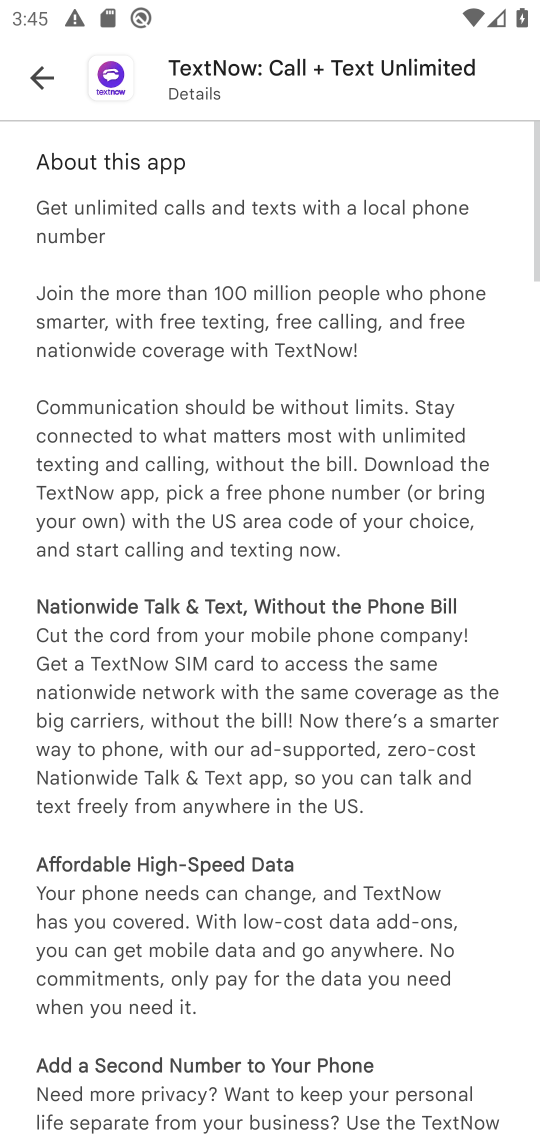
Step 48: task complete